Your task to perform on an android device: Go to ESPN.com Image 0: 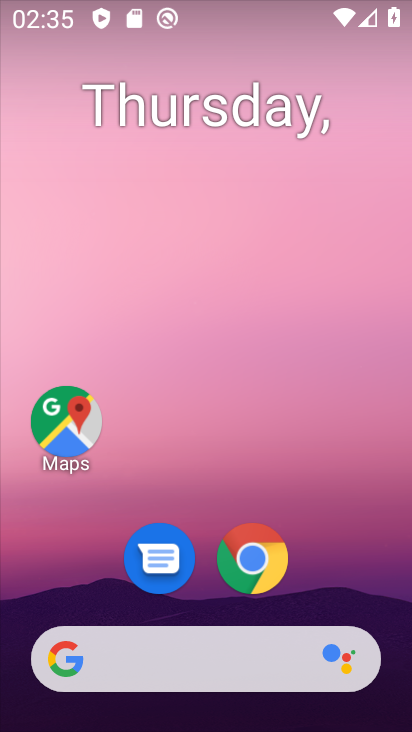
Step 0: click (258, 555)
Your task to perform on an android device: Go to ESPN.com Image 1: 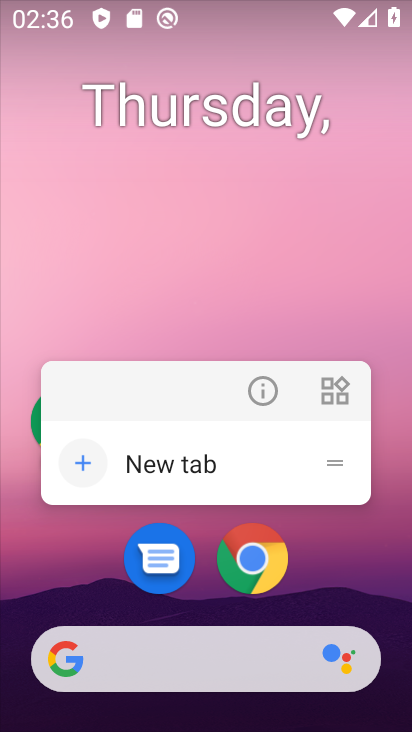
Step 1: click (254, 576)
Your task to perform on an android device: Go to ESPN.com Image 2: 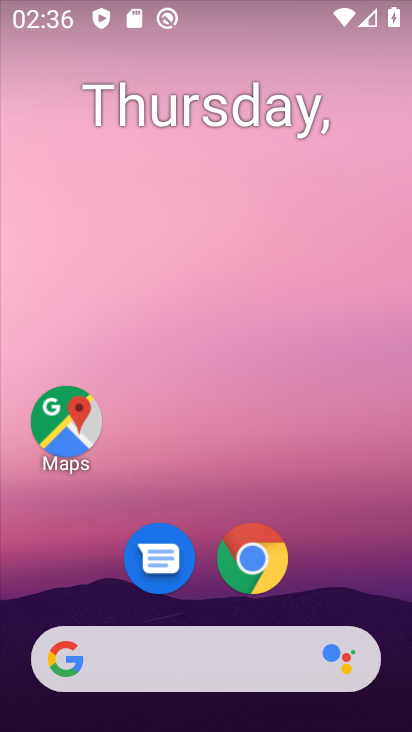
Step 2: click (256, 579)
Your task to perform on an android device: Go to ESPN.com Image 3: 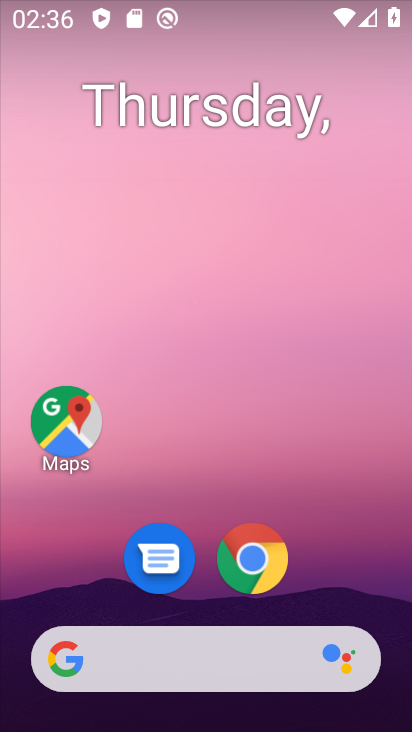
Step 3: click (261, 569)
Your task to perform on an android device: Go to ESPN.com Image 4: 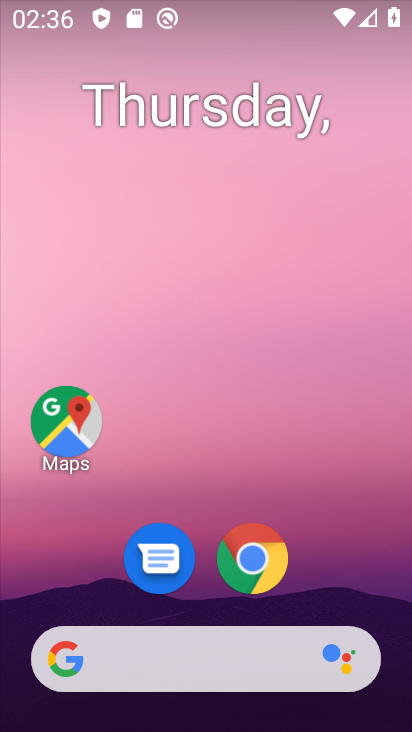
Step 4: click (263, 562)
Your task to perform on an android device: Go to ESPN.com Image 5: 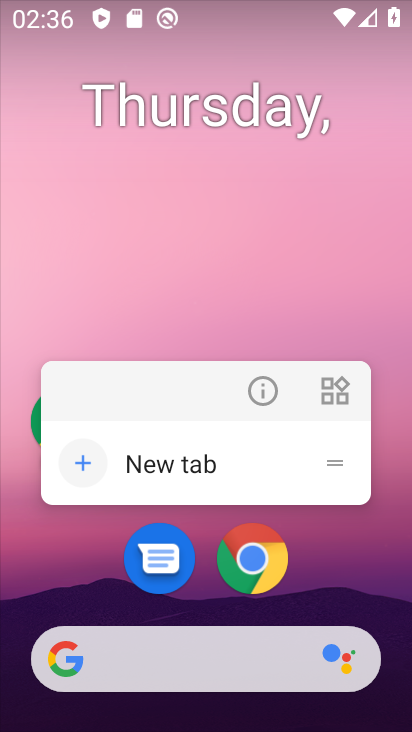
Step 5: click (255, 551)
Your task to perform on an android device: Go to ESPN.com Image 6: 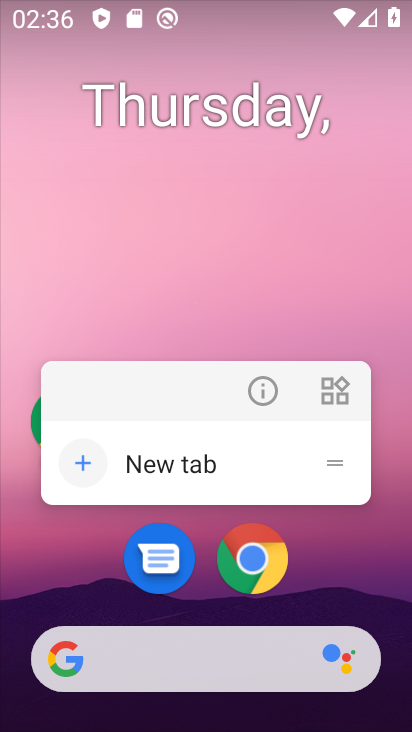
Step 6: click (247, 552)
Your task to perform on an android device: Go to ESPN.com Image 7: 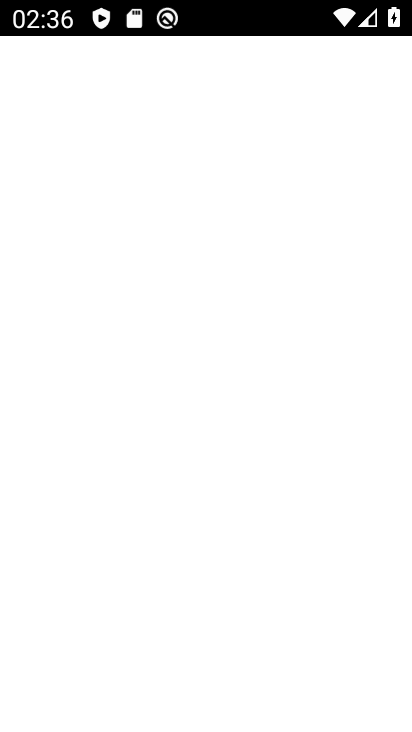
Step 7: click (246, 567)
Your task to perform on an android device: Go to ESPN.com Image 8: 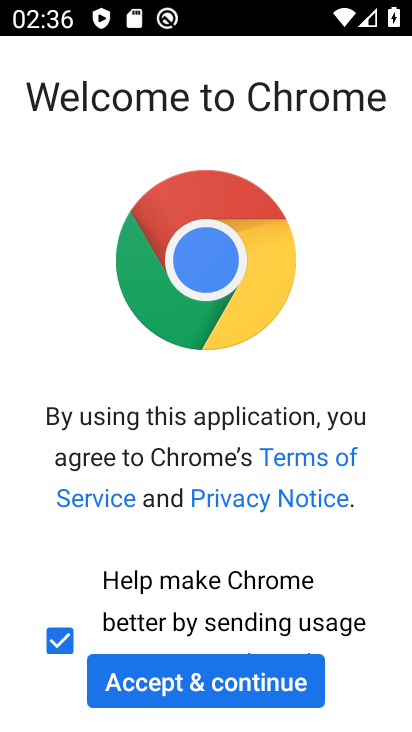
Step 8: click (229, 673)
Your task to perform on an android device: Go to ESPN.com Image 9: 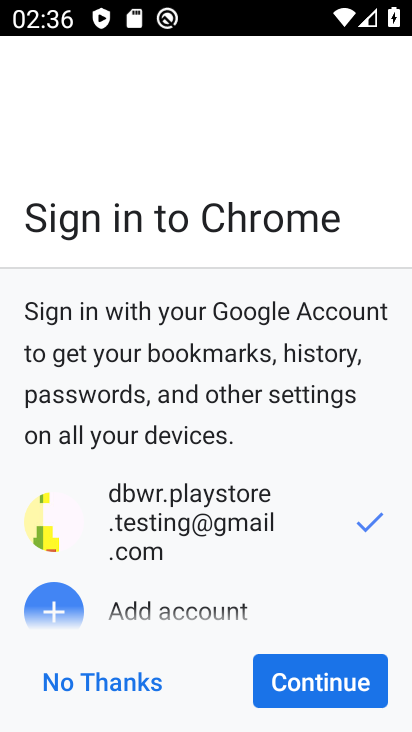
Step 9: click (349, 674)
Your task to perform on an android device: Go to ESPN.com Image 10: 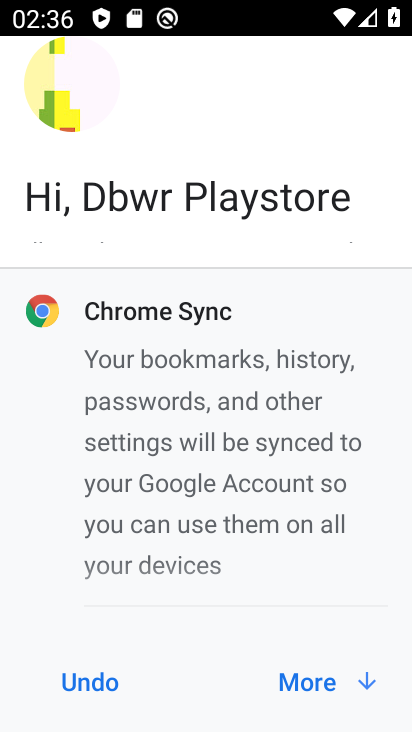
Step 10: click (349, 674)
Your task to perform on an android device: Go to ESPN.com Image 11: 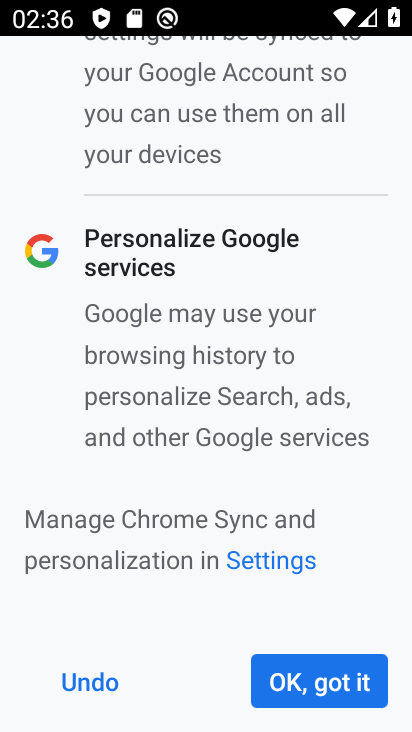
Step 11: click (345, 679)
Your task to perform on an android device: Go to ESPN.com Image 12: 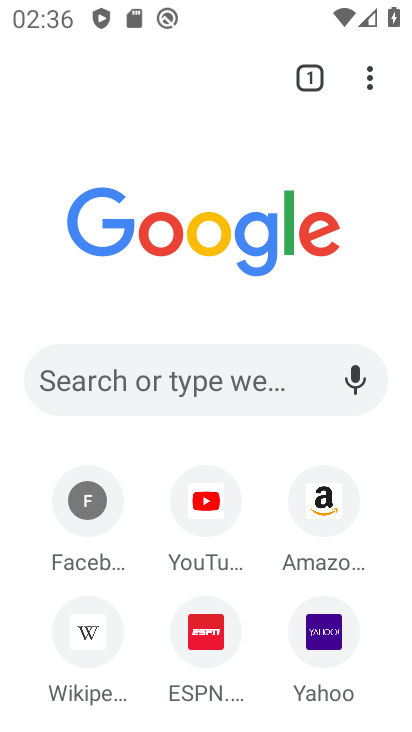
Step 12: click (207, 649)
Your task to perform on an android device: Go to ESPN.com Image 13: 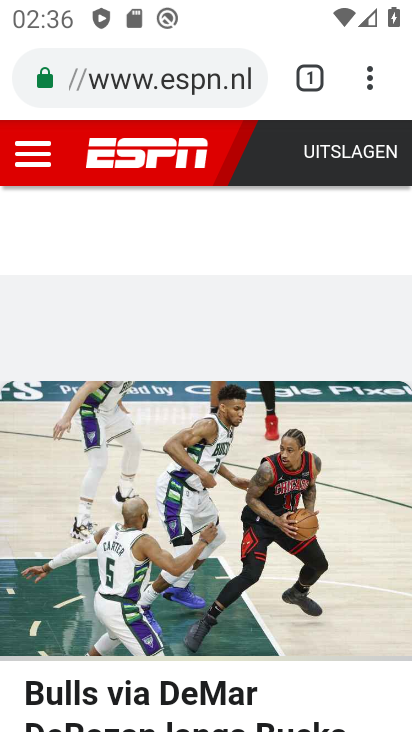
Step 13: task complete